Your task to perform on an android device: When is my next appointment? Image 0: 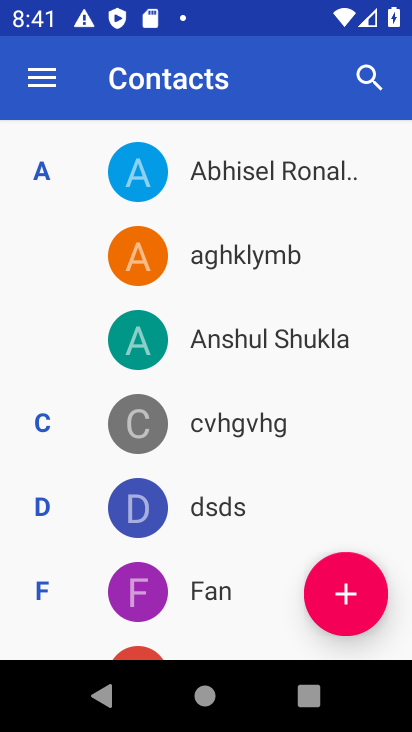
Step 0: press back button
Your task to perform on an android device: When is my next appointment? Image 1: 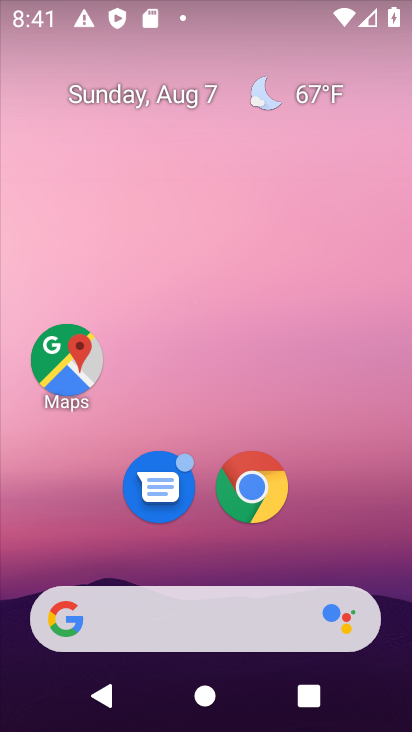
Step 1: drag from (364, 635) to (325, 156)
Your task to perform on an android device: When is my next appointment? Image 2: 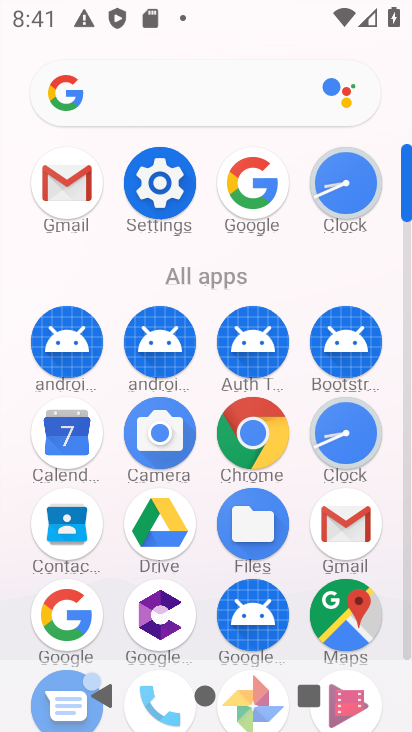
Step 2: click (49, 439)
Your task to perform on an android device: When is my next appointment? Image 3: 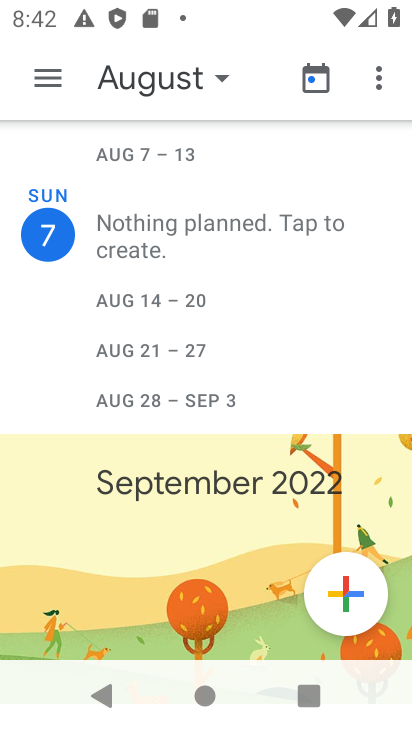
Step 3: click (54, 72)
Your task to perform on an android device: When is my next appointment? Image 4: 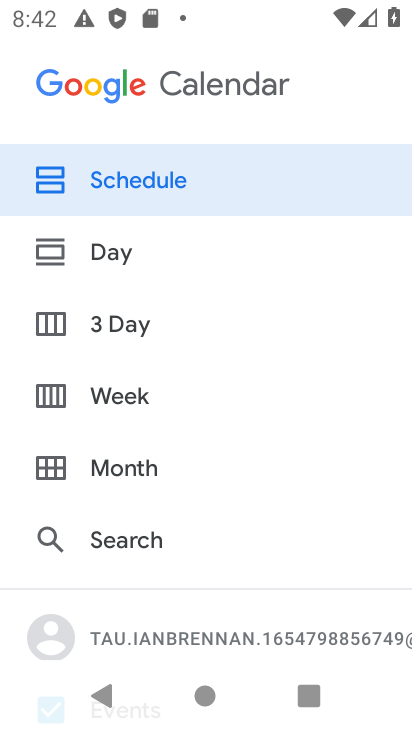
Step 4: drag from (190, 570) to (203, 234)
Your task to perform on an android device: When is my next appointment? Image 5: 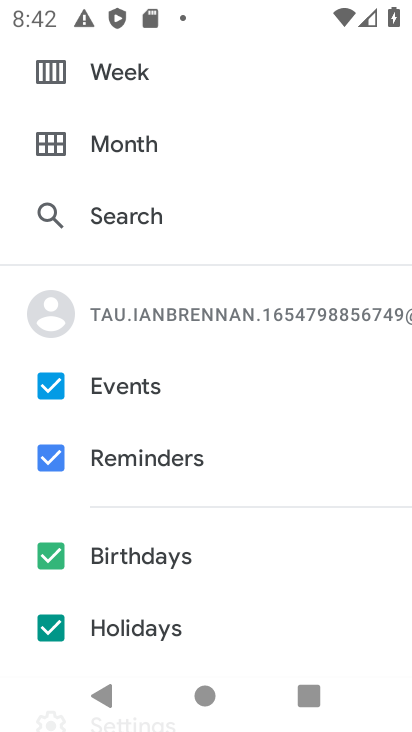
Step 5: click (48, 633)
Your task to perform on an android device: When is my next appointment? Image 6: 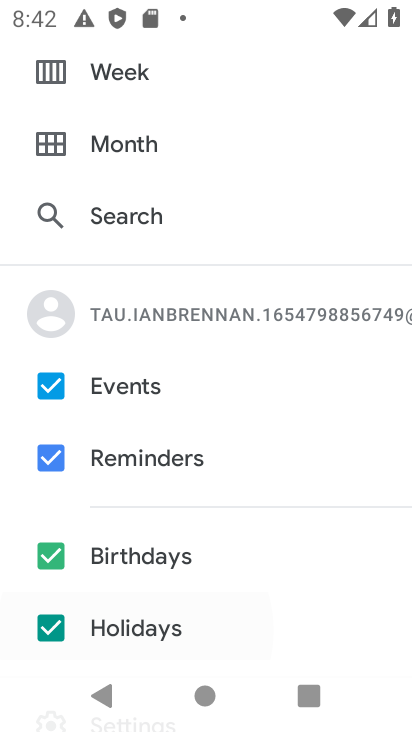
Step 6: click (59, 539)
Your task to perform on an android device: When is my next appointment? Image 7: 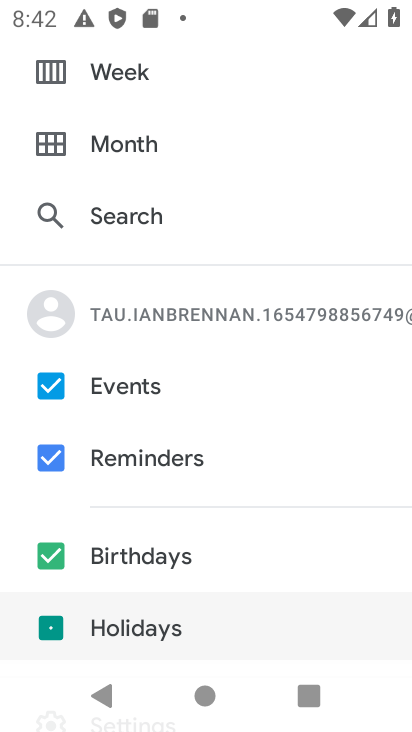
Step 7: click (55, 465)
Your task to perform on an android device: When is my next appointment? Image 8: 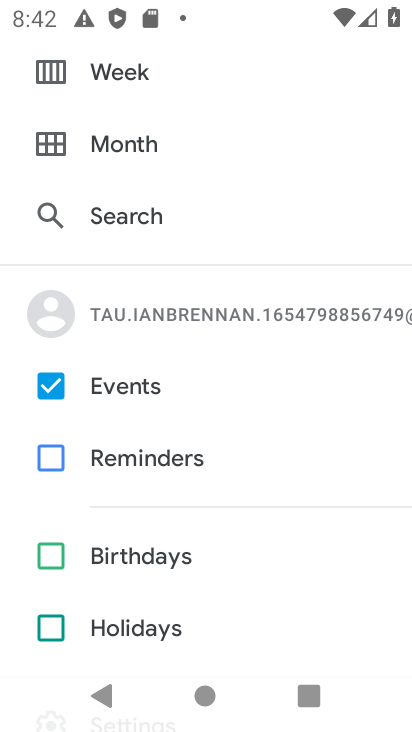
Step 8: drag from (195, 93) to (193, 529)
Your task to perform on an android device: When is my next appointment? Image 9: 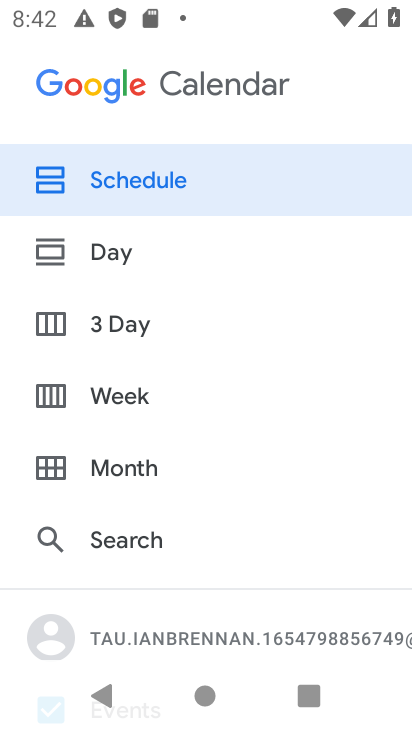
Step 9: click (118, 165)
Your task to perform on an android device: When is my next appointment? Image 10: 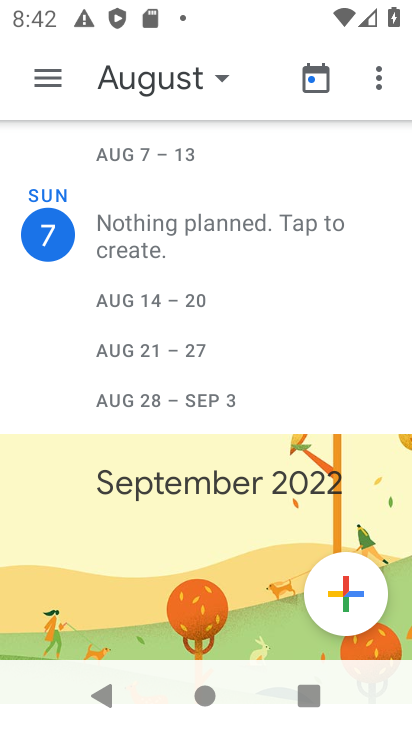
Step 10: task complete